Your task to perform on an android device: change notifications settings Image 0: 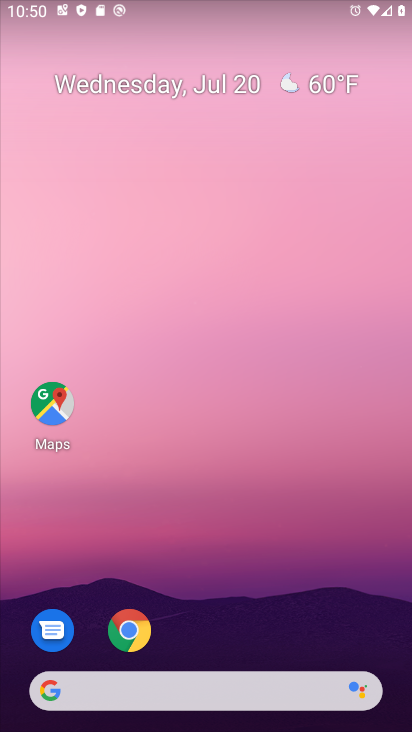
Step 0: drag from (191, 725) to (191, 413)
Your task to perform on an android device: change notifications settings Image 1: 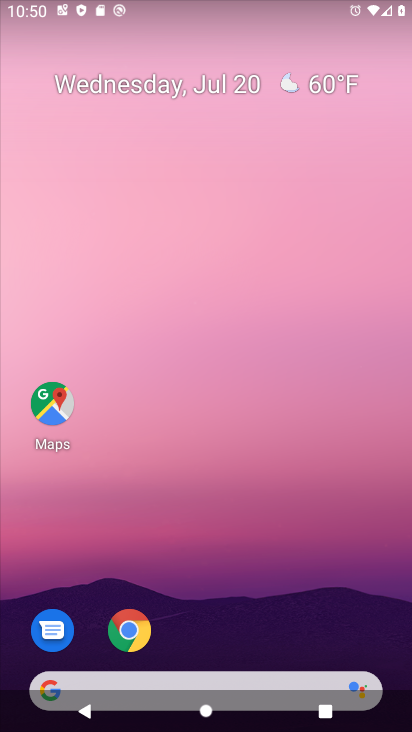
Step 1: drag from (239, 727) to (239, 276)
Your task to perform on an android device: change notifications settings Image 2: 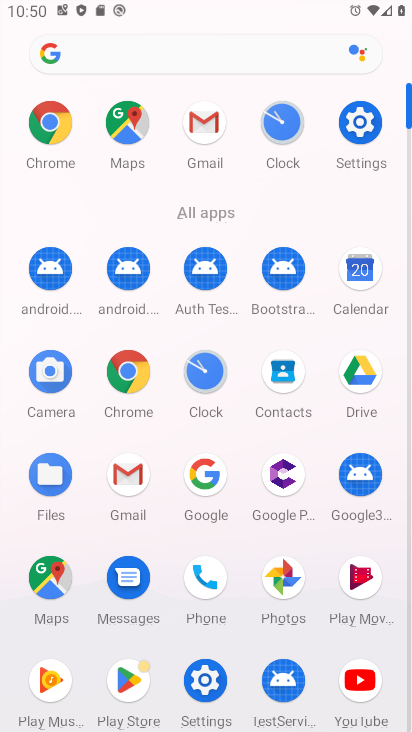
Step 2: click (363, 120)
Your task to perform on an android device: change notifications settings Image 3: 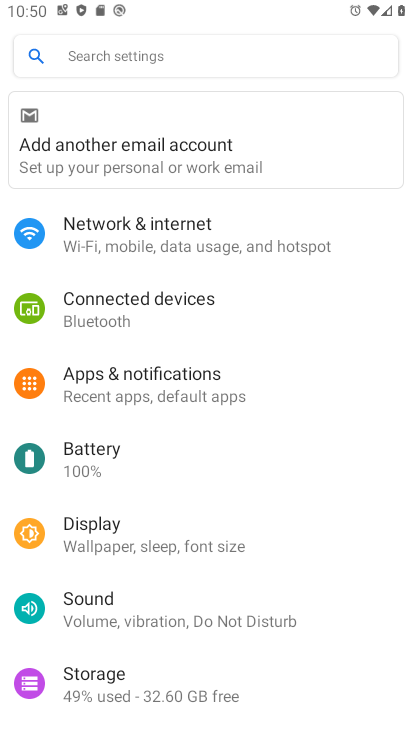
Step 3: click (123, 381)
Your task to perform on an android device: change notifications settings Image 4: 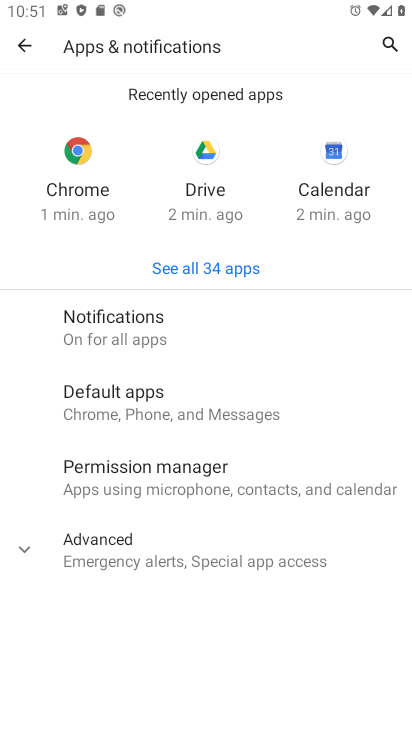
Step 4: click (105, 323)
Your task to perform on an android device: change notifications settings Image 5: 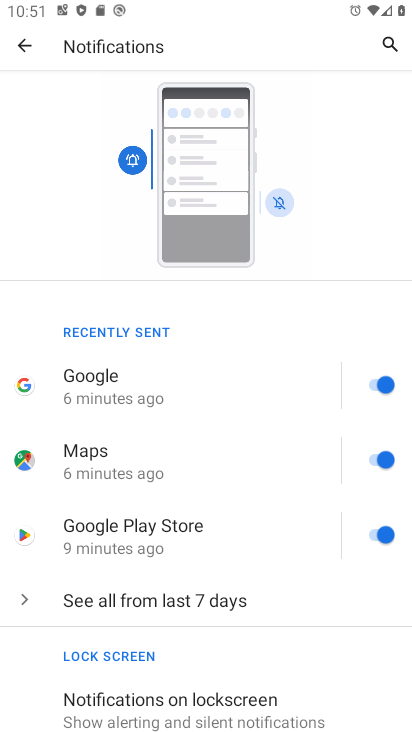
Step 5: drag from (268, 674) to (250, 401)
Your task to perform on an android device: change notifications settings Image 6: 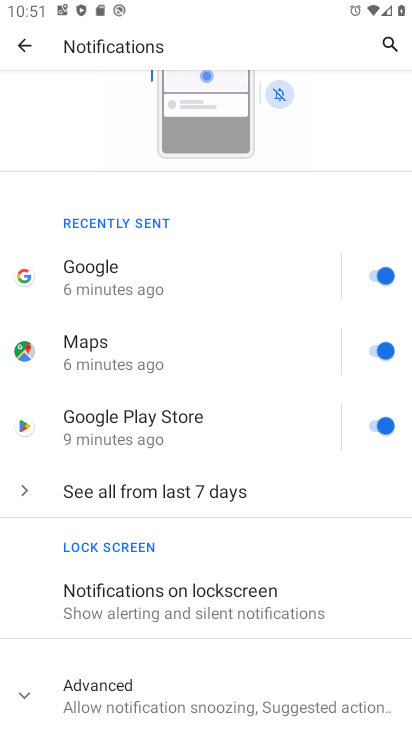
Step 6: click (191, 697)
Your task to perform on an android device: change notifications settings Image 7: 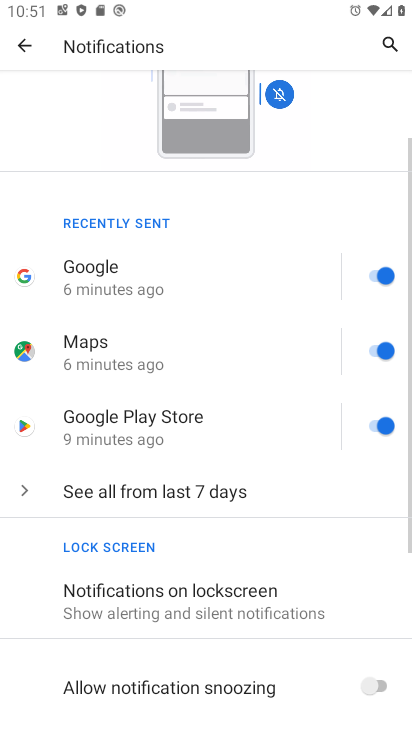
Step 7: click (378, 682)
Your task to perform on an android device: change notifications settings Image 8: 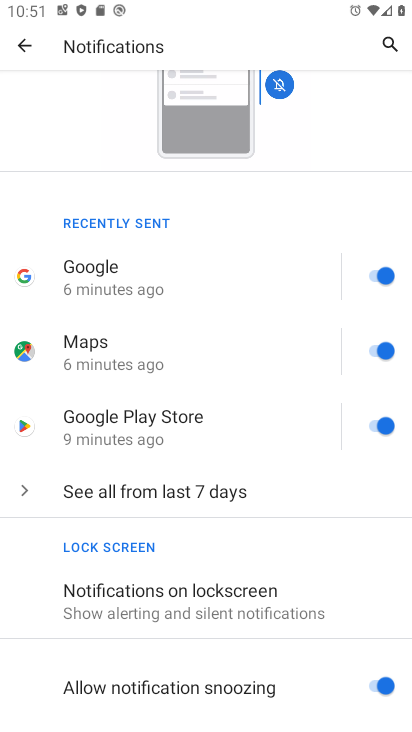
Step 8: task complete